Your task to perform on an android device: turn off priority inbox in the gmail app Image 0: 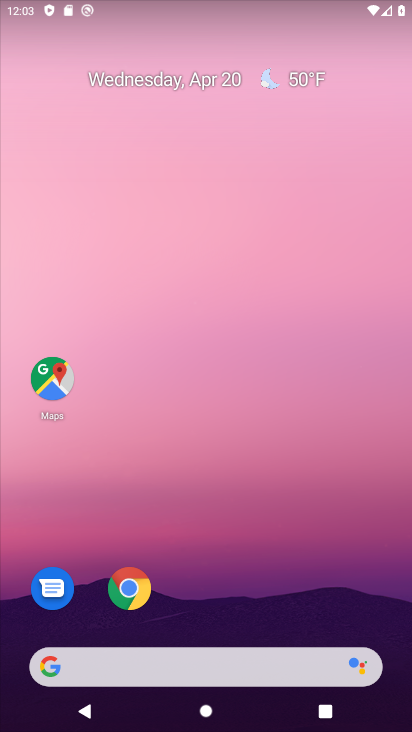
Step 0: drag from (202, 604) to (257, 148)
Your task to perform on an android device: turn off priority inbox in the gmail app Image 1: 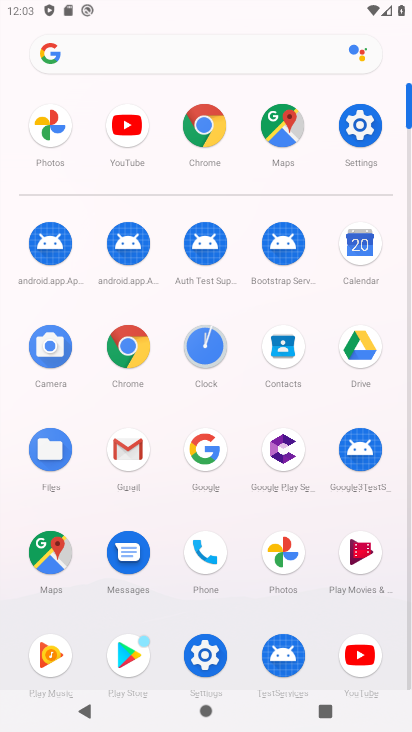
Step 1: click (127, 451)
Your task to perform on an android device: turn off priority inbox in the gmail app Image 2: 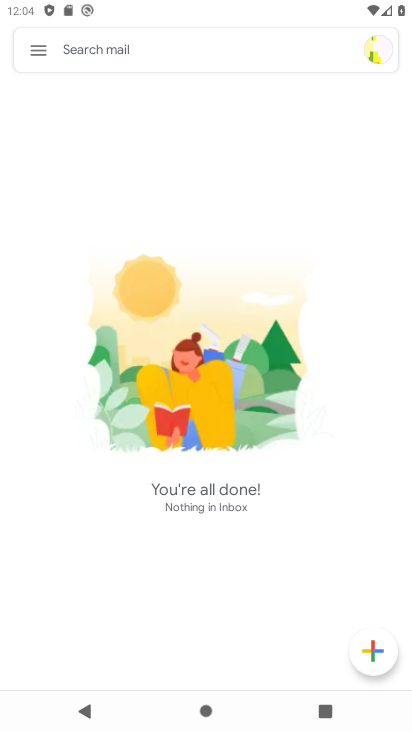
Step 2: click (30, 51)
Your task to perform on an android device: turn off priority inbox in the gmail app Image 3: 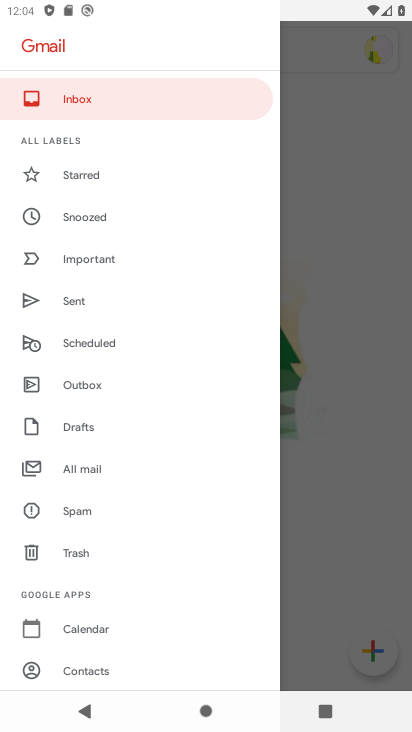
Step 3: drag from (113, 619) to (184, 281)
Your task to perform on an android device: turn off priority inbox in the gmail app Image 4: 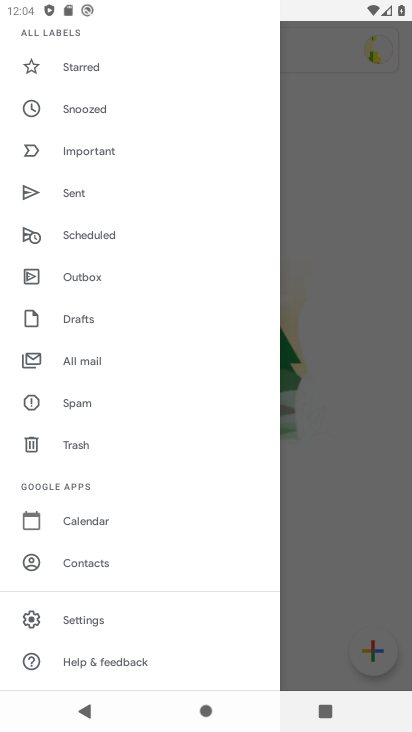
Step 4: click (115, 614)
Your task to perform on an android device: turn off priority inbox in the gmail app Image 5: 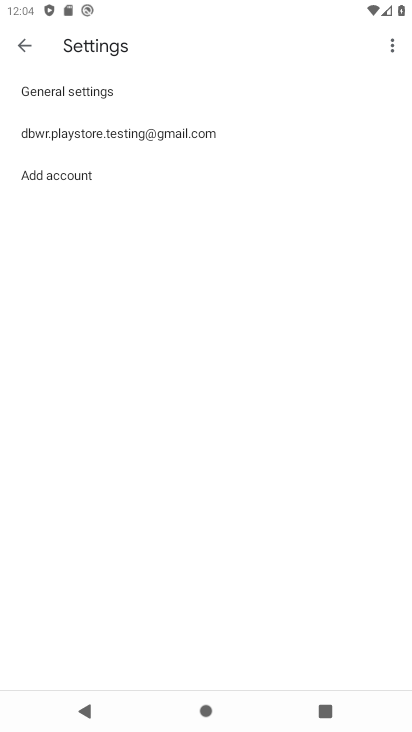
Step 5: click (232, 133)
Your task to perform on an android device: turn off priority inbox in the gmail app Image 6: 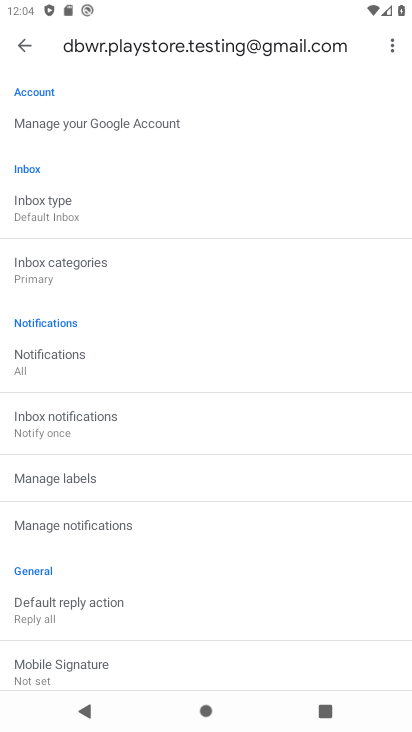
Step 6: click (102, 208)
Your task to perform on an android device: turn off priority inbox in the gmail app Image 7: 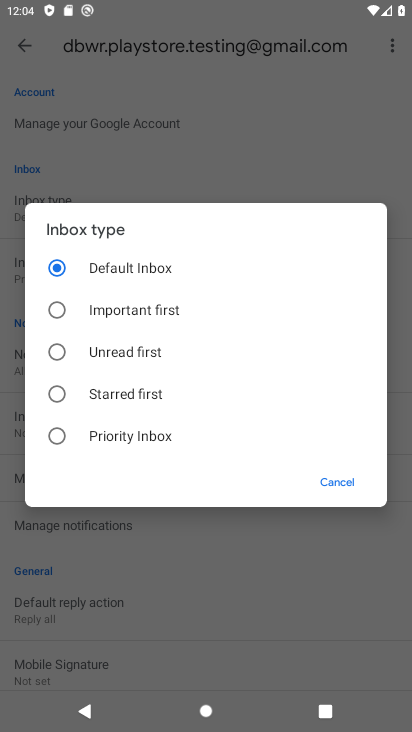
Step 7: click (54, 433)
Your task to perform on an android device: turn off priority inbox in the gmail app Image 8: 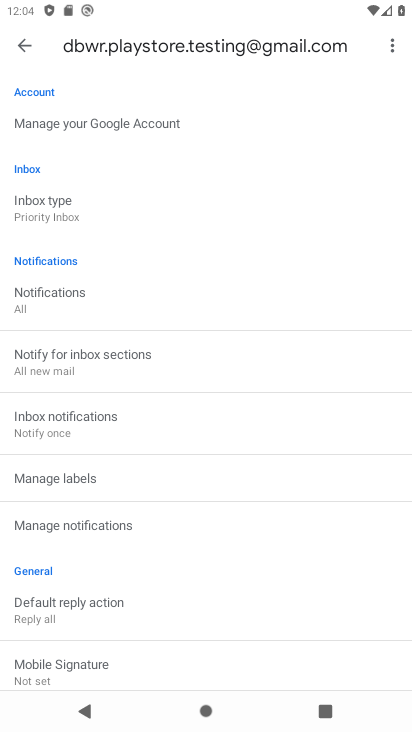
Step 8: click (86, 208)
Your task to perform on an android device: turn off priority inbox in the gmail app Image 9: 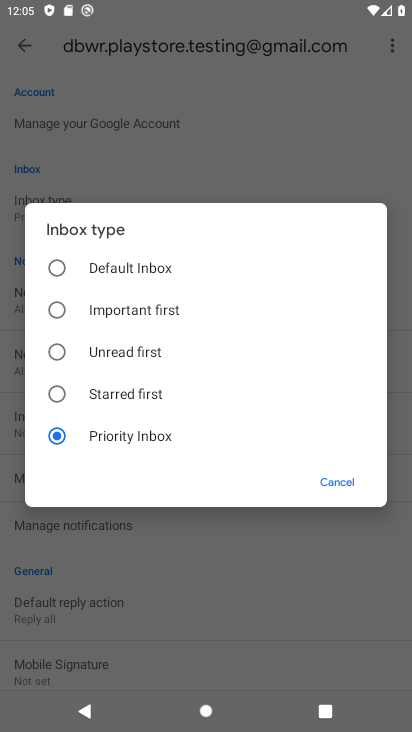
Step 9: click (58, 357)
Your task to perform on an android device: turn off priority inbox in the gmail app Image 10: 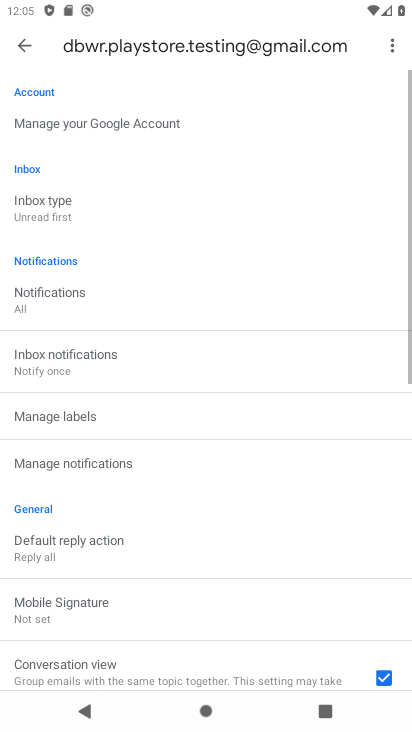
Step 10: task complete